Your task to perform on an android device: check out phone information Image 0: 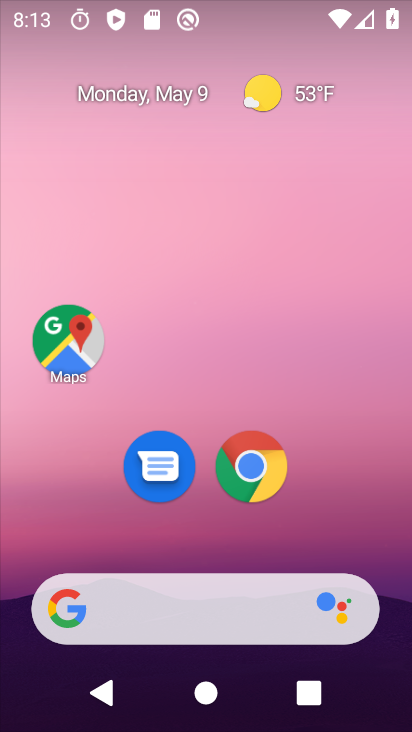
Step 0: drag from (331, 521) to (260, 0)
Your task to perform on an android device: check out phone information Image 1: 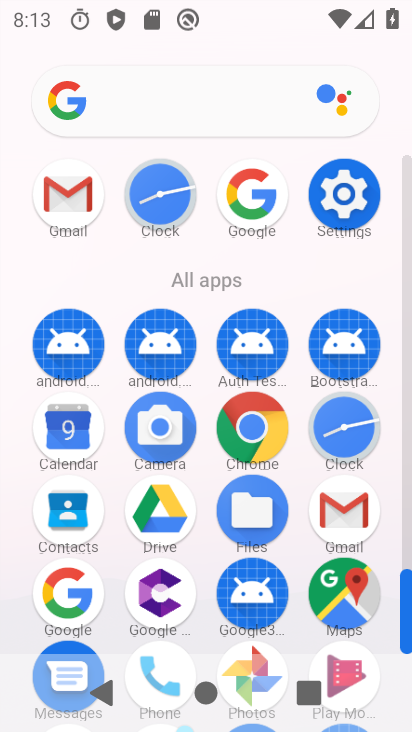
Step 1: click (342, 194)
Your task to perform on an android device: check out phone information Image 2: 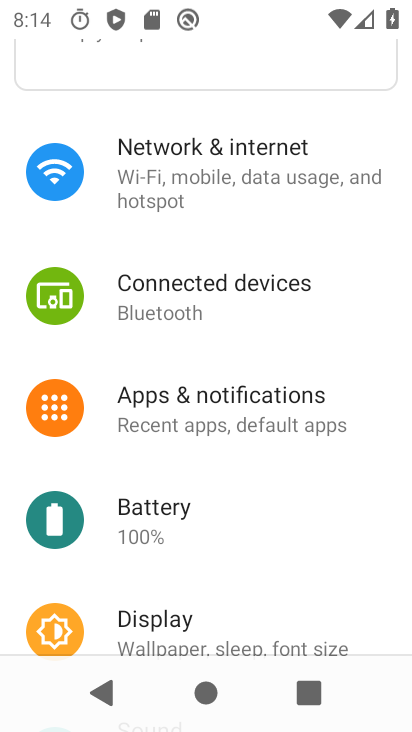
Step 2: drag from (223, 481) to (314, 267)
Your task to perform on an android device: check out phone information Image 3: 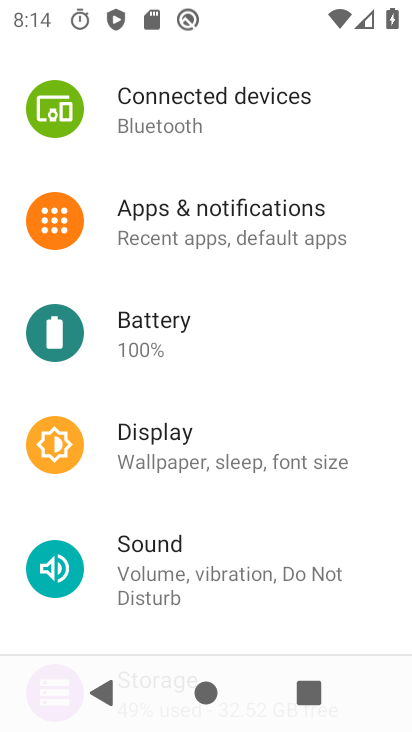
Step 3: drag from (225, 511) to (252, 333)
Your task to perform on an android device: check out phone information Image 4: 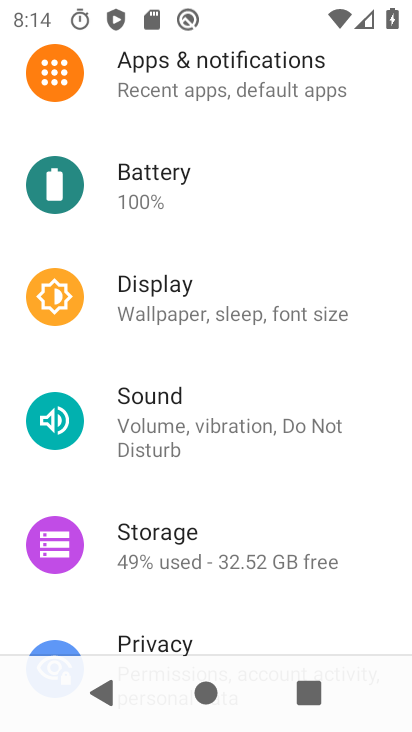
Step 4: drag from (164, 495) to (252, 321)
Your task to perform on an android device: check out phone information Image 5: 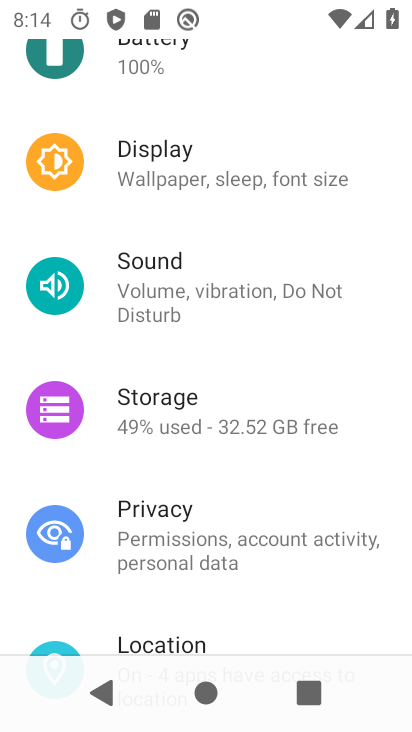
Step 5: drag from (158, 476) to (257, 316)
Your task to perform on an android device: check out phone information Image 6: 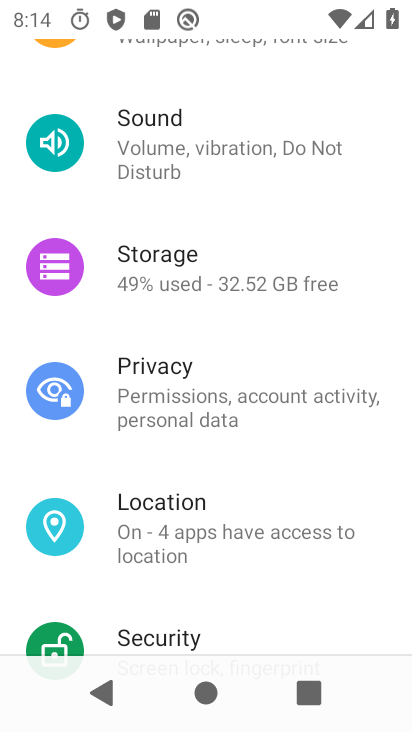
Step 6: drag from (177, 455) to (263, 313)
Your task to perform on an android device: check out phone information Image 7: 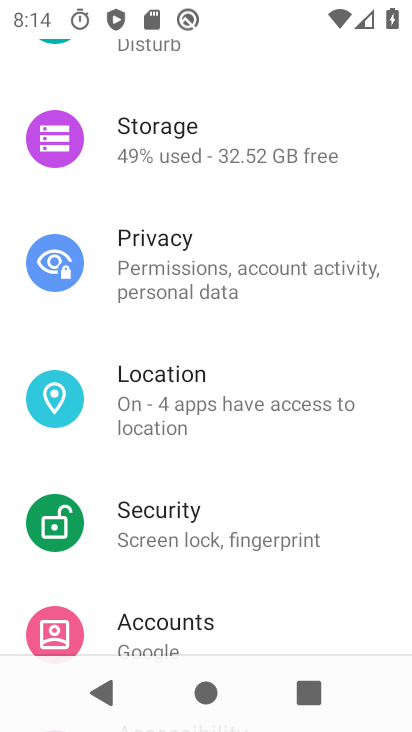
Step 7: drag from (182, 475) to (270, 309)
Your task to perform on an android device: check out phone information Image 8: 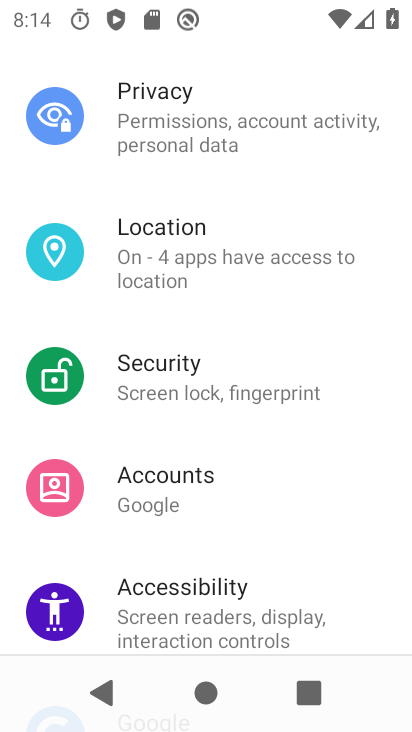
Step 8: drag from (163, 455) to (284, 299)
Your task to perform on an android device: check out phone information Image 9: 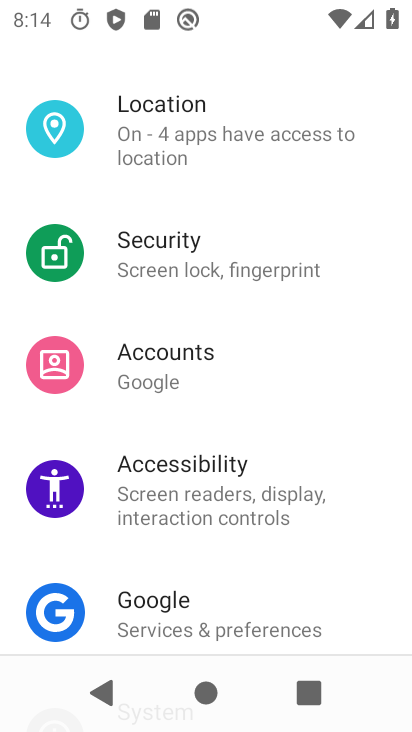
Step 9: drag from (158, 543) to (260, 412)
Your task to perform on an android device: check out phone information Image 10: 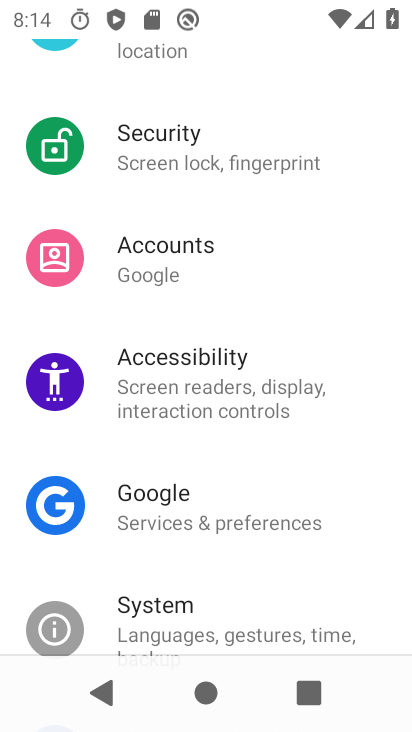
Step 10: drag from (149, 563) to (273, 410)
Your task to perform on an android device: check out phone information Image 11: 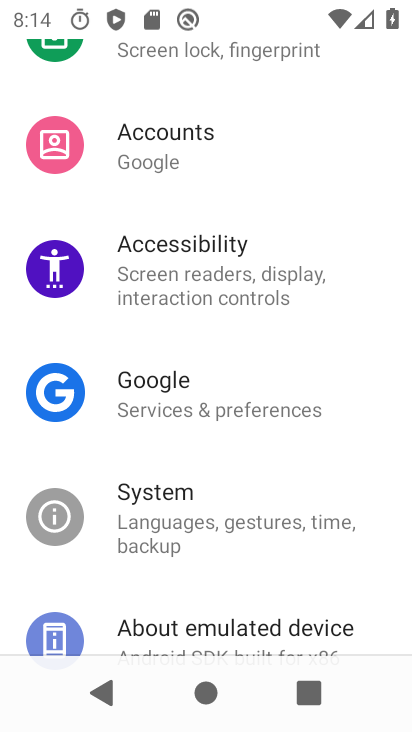
Step 11: drag from (180, 570) to (284, 443)
Your task to perform on an android device: check out phone information Image 12: 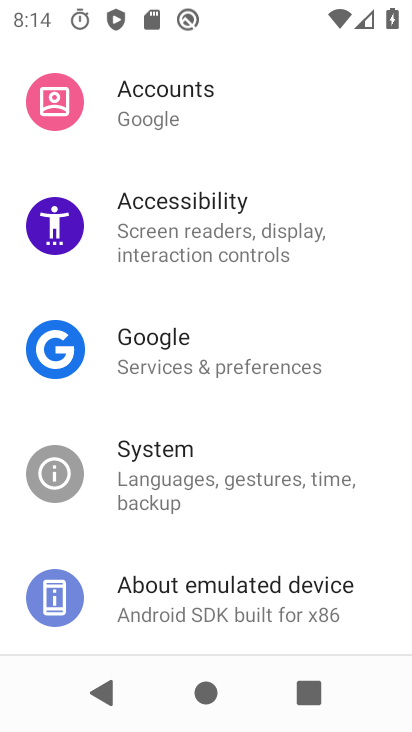
Step 12: click (195, 573)
Your task to perform on an android device: check out phone information Image 13: 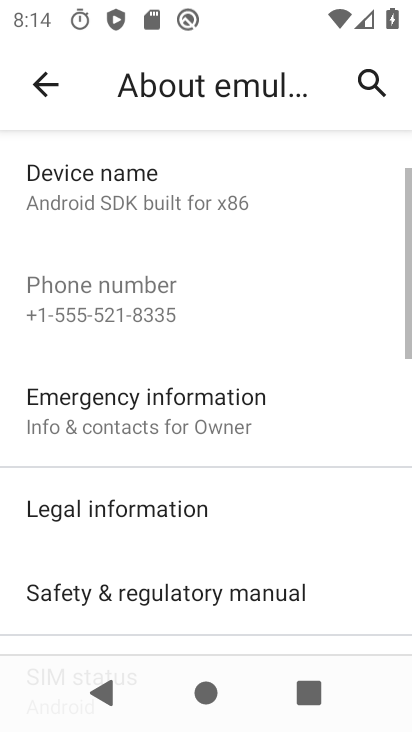
Step 13: task complete